Your task to perform on an android device: Go to Reddit.com Image 0: 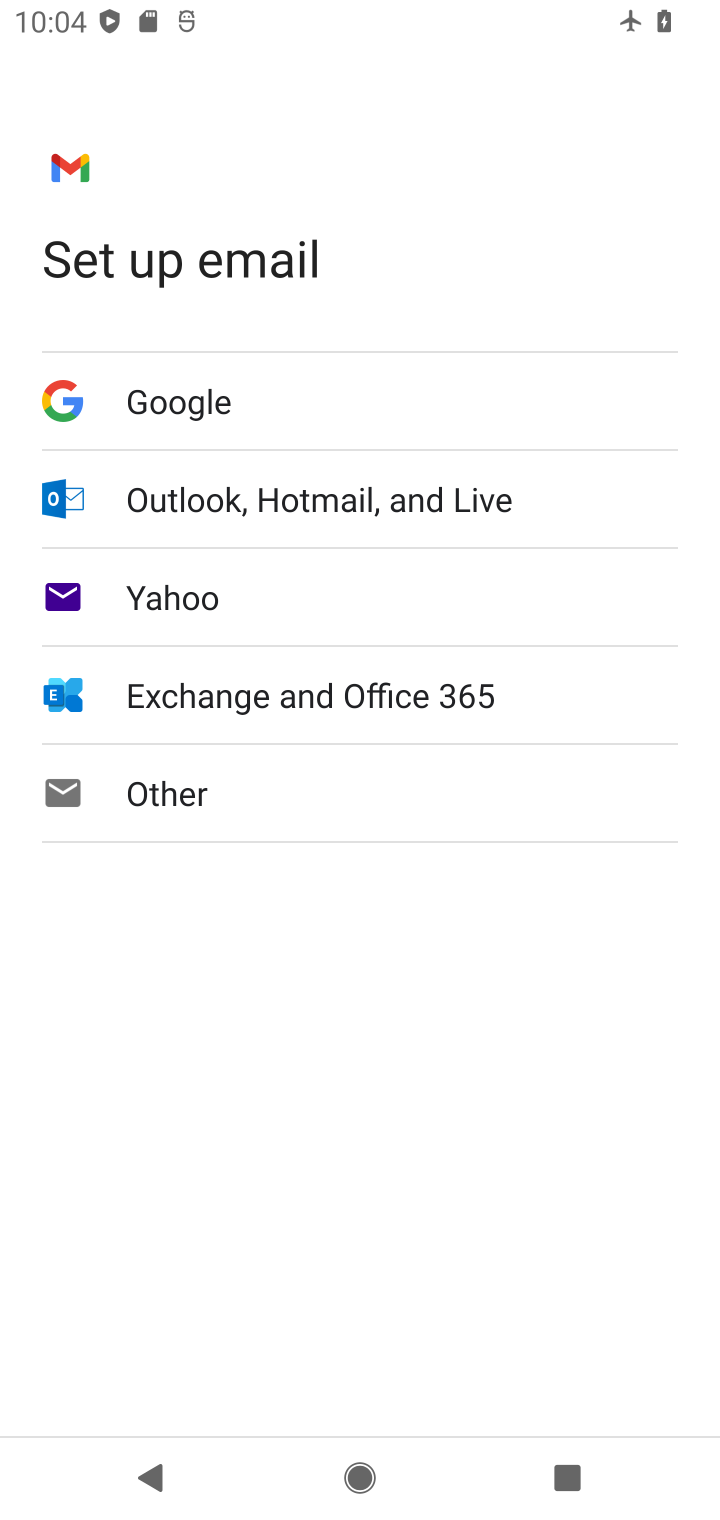
Step 0: press home button
Your task to perform on an android device: Go to Reddit.com Image 1: 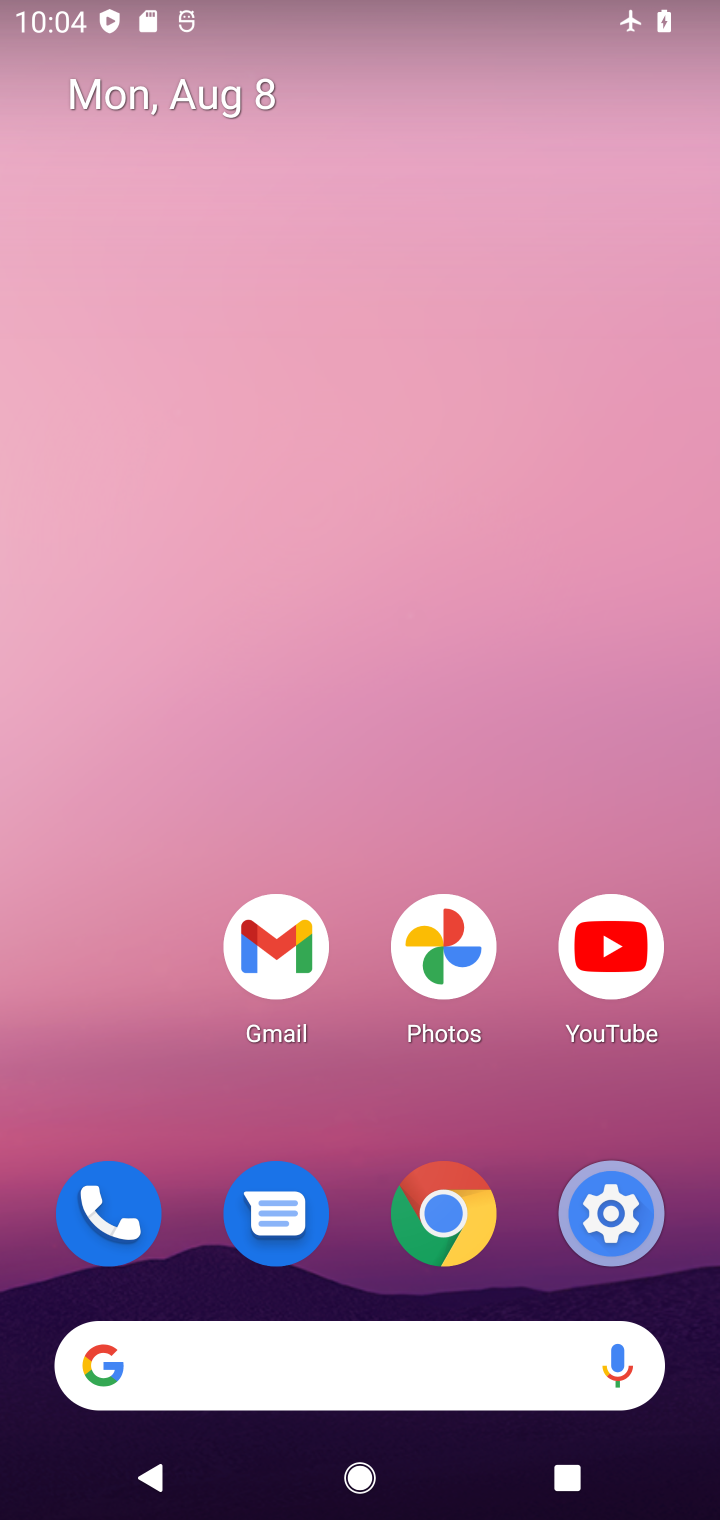
Step 1: drag from (314, 1085) to (356, 266)
Your task to perform on an android device: Go to Reddit.com Image 2: 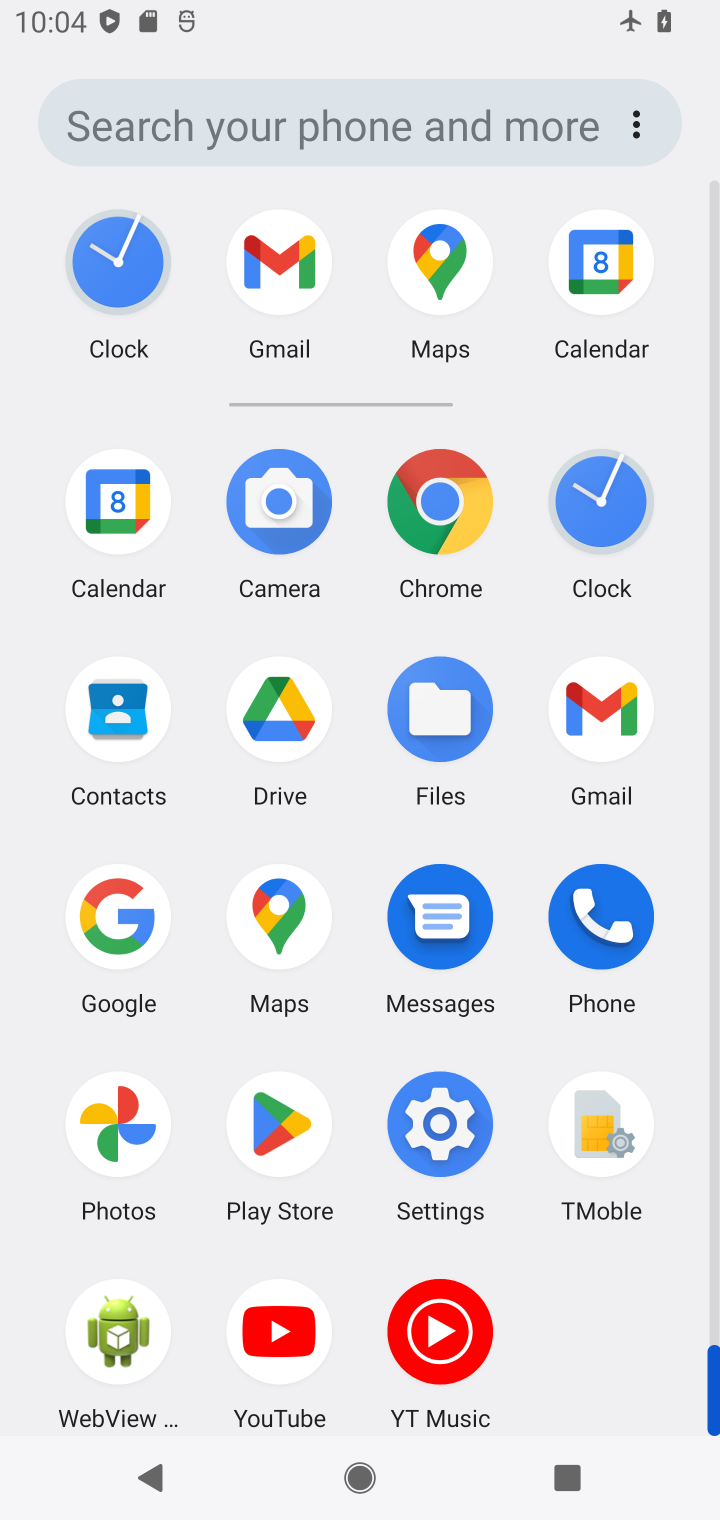
Step 2: click (484, 521)
Your task to perform on an android device: Go to Reddit.com Image 3: 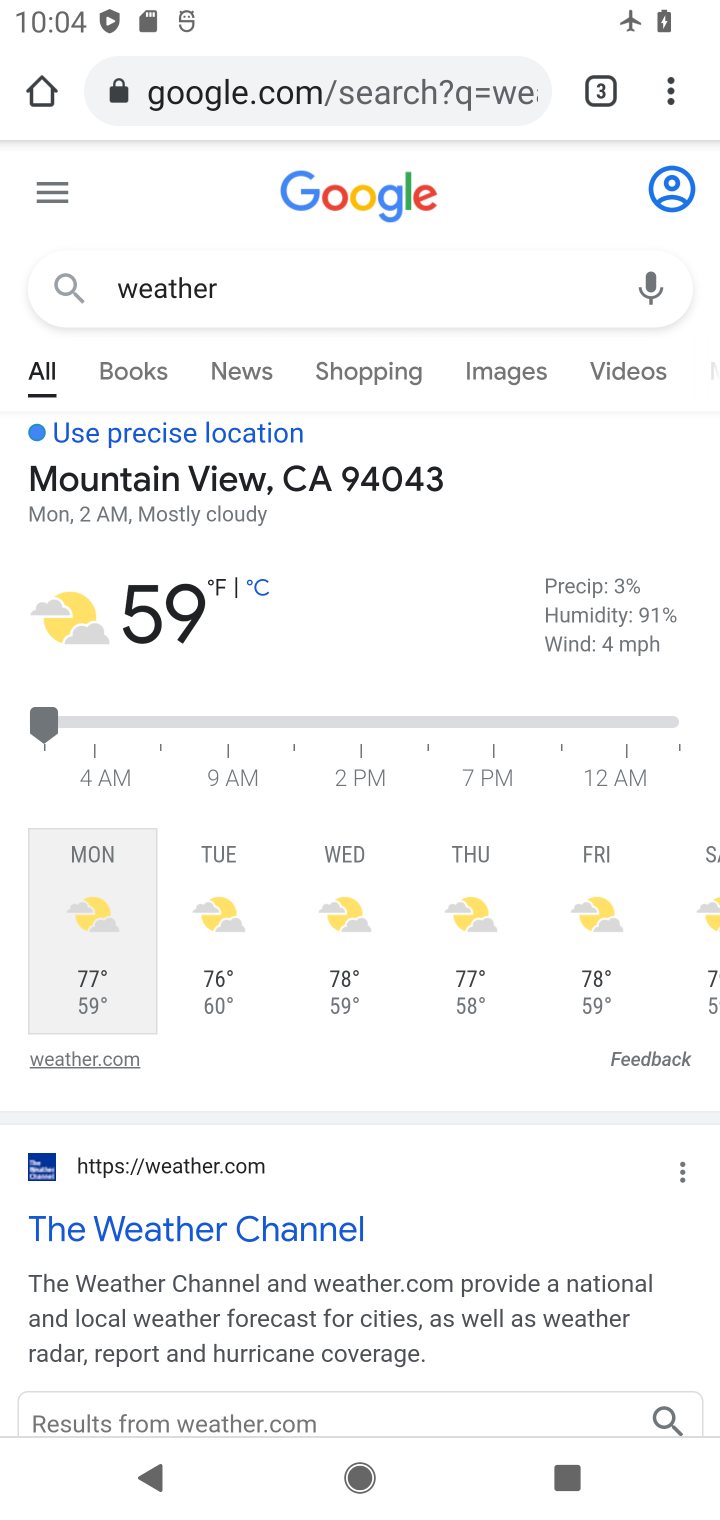
Step 3: click (606, 81)
Your task to perform on an android device: Go to Reddit.com Image 4: 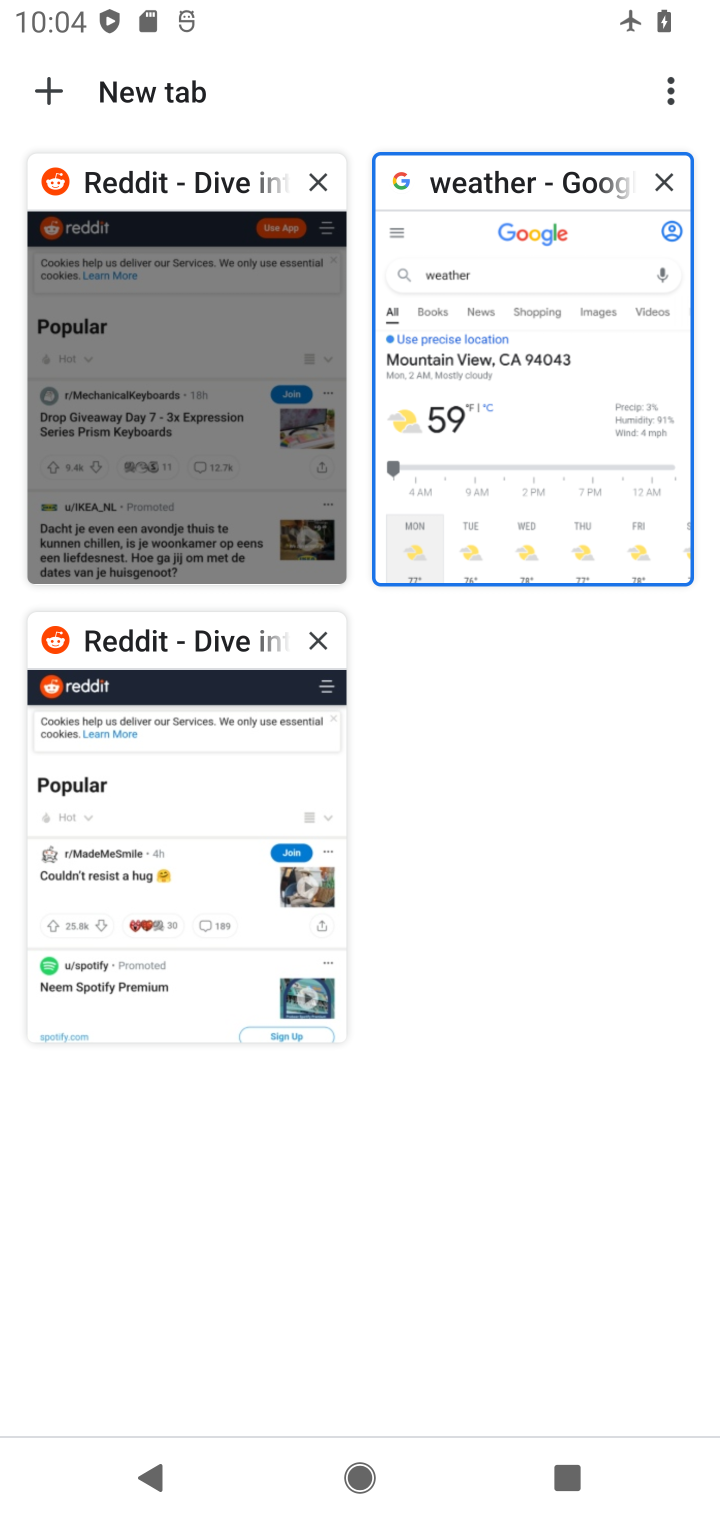
Step 4: click (245, 444)
Your task to perform on an android device: Go to Reddit.com Image 5: 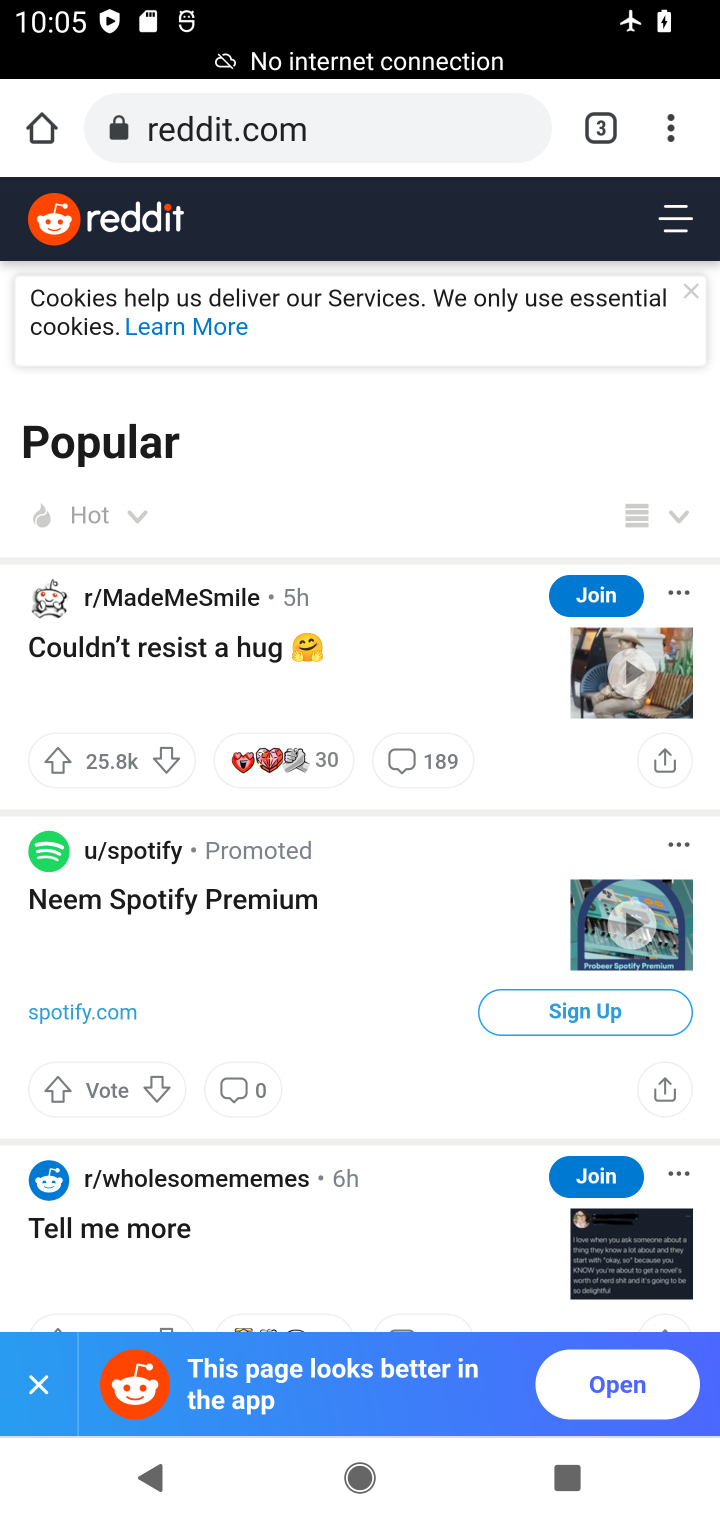
Step 5: task complete